Your task to perform on an android device: Open calendar and show me the second week of next month Image 0: 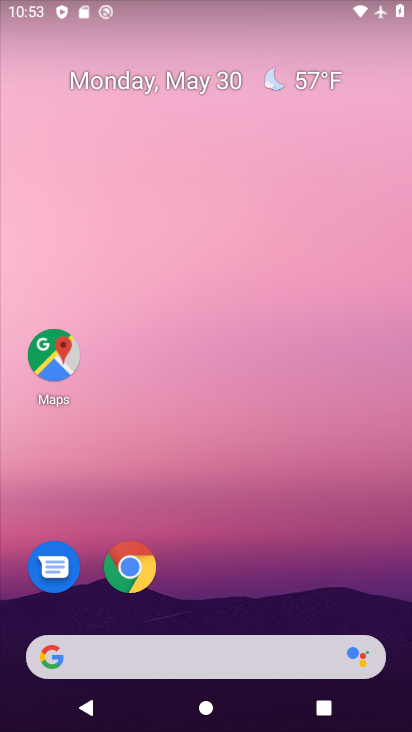
Step 0: drag from (174, 559) to (174, 160)
Your task to perform on an android device: Open calendar and show me the second week of next month Image 1: 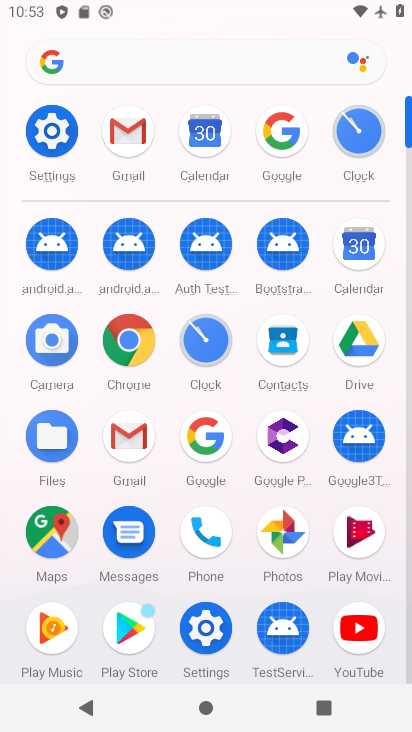
Step 1: click (222, 129)
Your task to perform on an android device: Open calendar and show me the second week of next month Image 2: 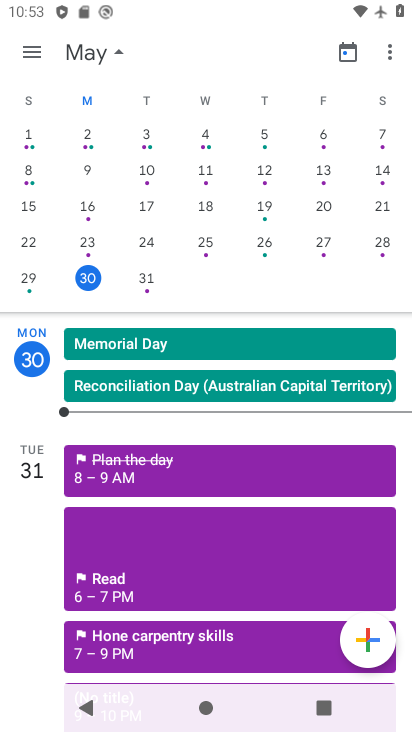
Step 2: drag from (341, 231) to (3, 175)
Your task to perform on an android device: Open calendar and show me the second week of next month Image 3: 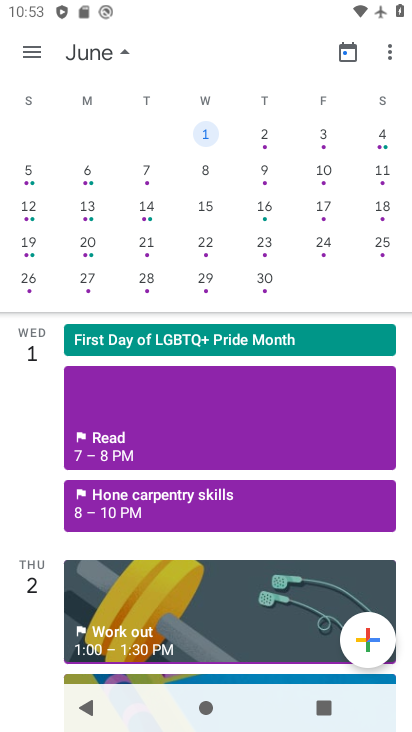
Step 3: click (41, 175)
Your task to perform on an android device: Open calendar and show me the second week of next month Image 4: 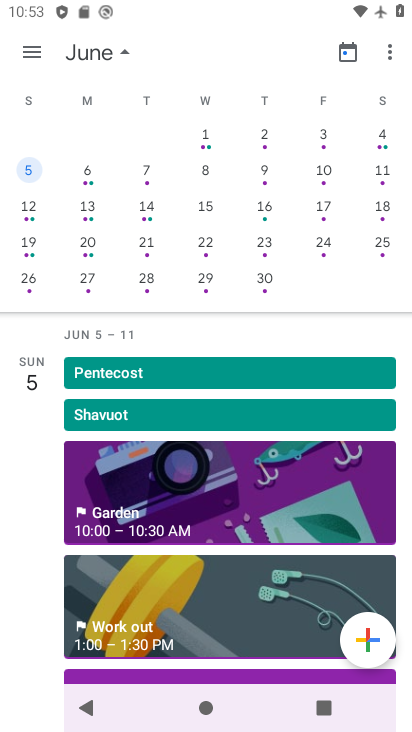
Step 4: task complete